Your task to perform on an android device: delete browsing data in the chrome app Image 0: 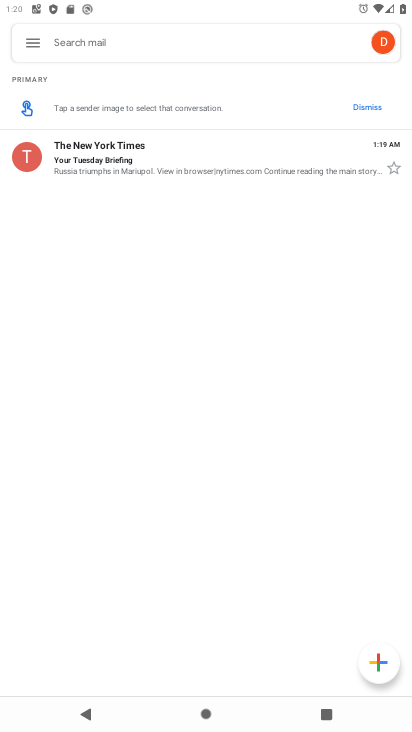
Step 0: press home button
Your task to perform on an android device: delete browsing data in the chrome app Image 1: 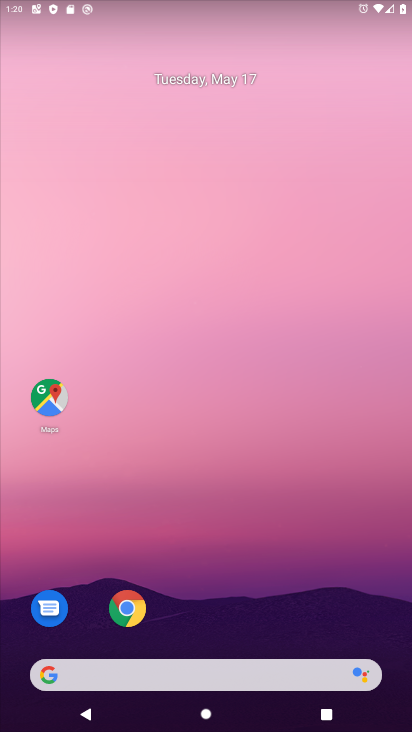
Step 1: click (126, 604)
Your task to perform on an android device: delete browsing data in the chrome app Image 2: 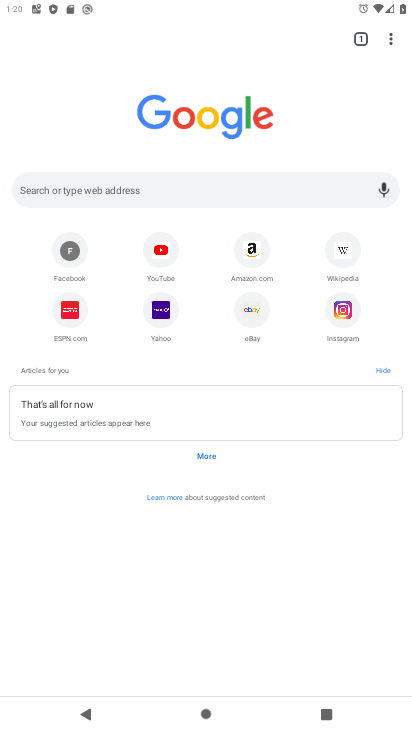
Step 2: click (395, 39)
Your task to perform on an android device: delete browsing data in the chrome app Image 3: 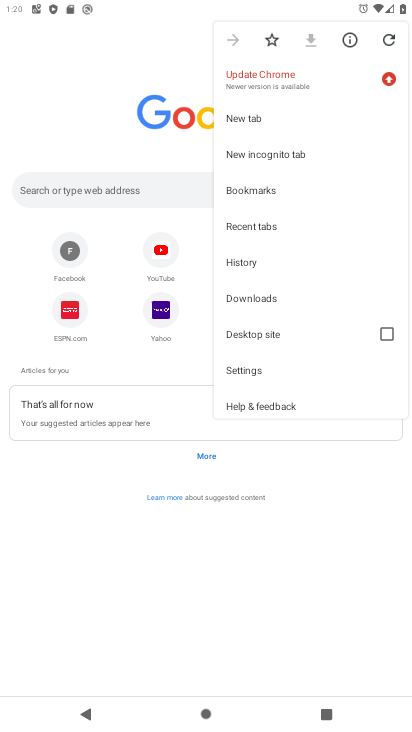
Step 3: click (261, 260)
Your task to perform on an android device: delete browsing data in the chrome app Image 4: 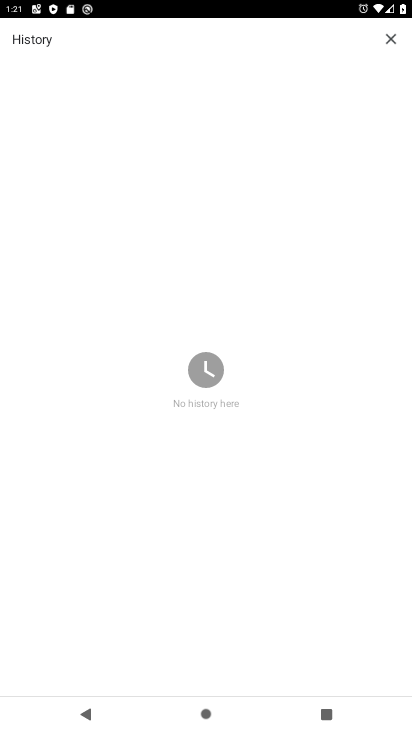
Step 4: task complete